Your task to perform on an android device: What's on my calendar tomorrow? Image 0: 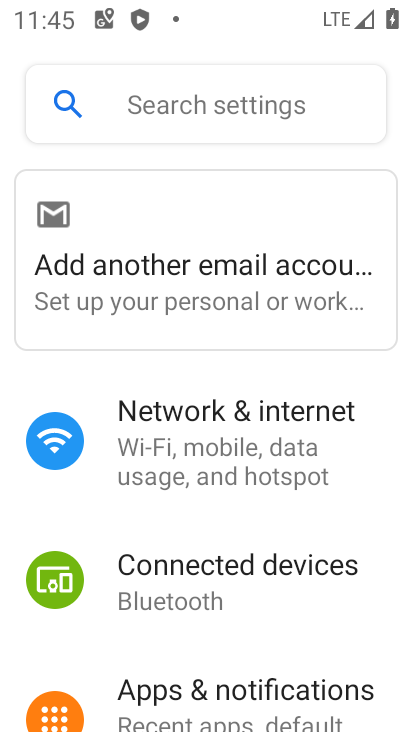
Step 0: press home button
Your task to perform on an android device: What's on my calendar tomorrow? Image 1: 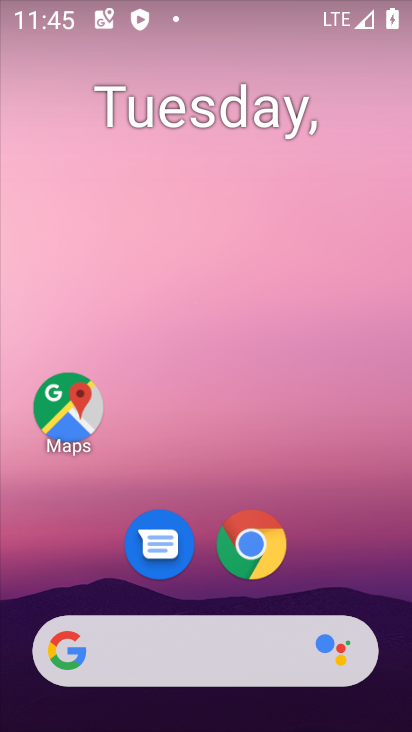
Step 1: drag from (390, 627) to (326, 97)
Your task to perform on an android device: What's on my calendar tomorrow? Image 2: 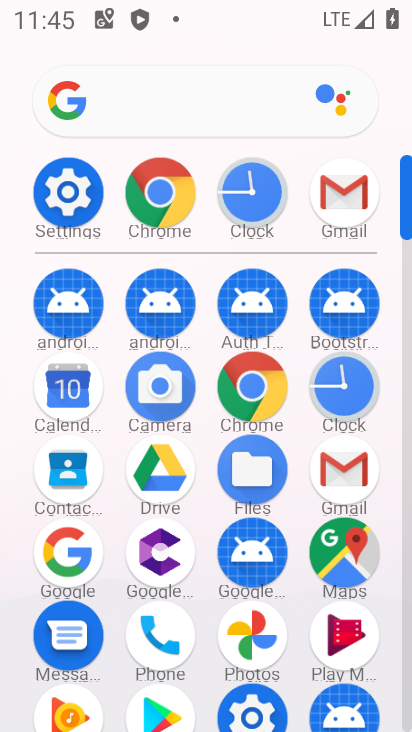
Step 2: click (62, 407)
Your task to perform on an android device: What's on my calendar tomorrow? Image 3: 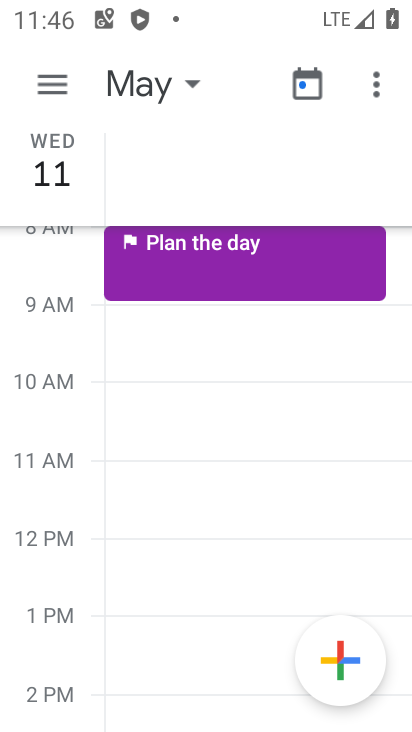
Step 3: click (132, 98)
Your task to perform on an android device: What's on my calendar tomorrow? Image 4: 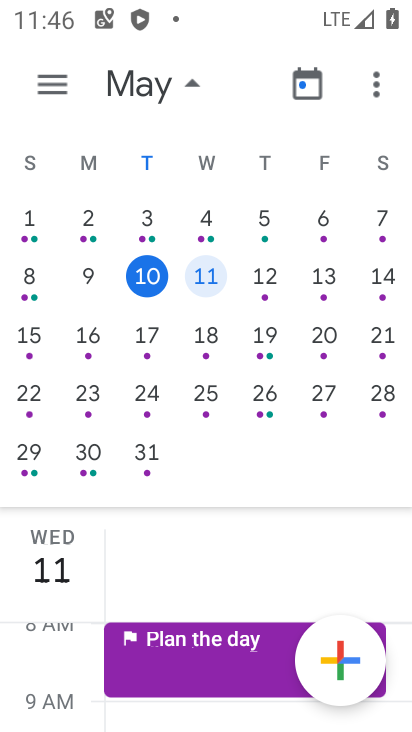
Step 4: click (261, 278)
Your task to perform on an android device: What's on my calendar tomorrow? Image 5: 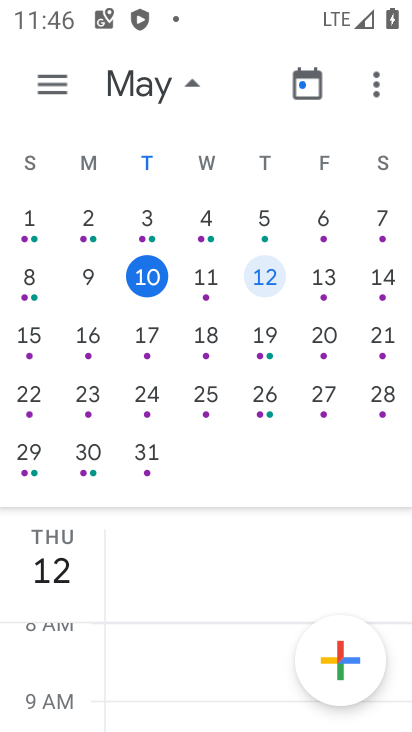
Step 5: drag from (182, 621) to (235, 236)
Your task to perform on an android device: What's on my calendar tomorrow? Image 6: 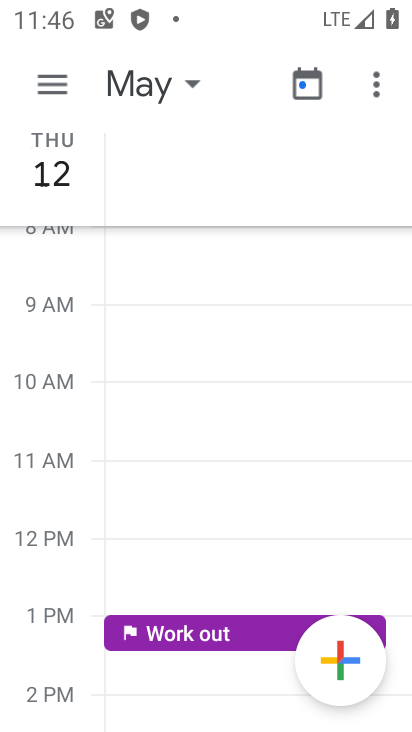
Step 6: click (175, 639)
Your task to perform on an android device: What's on my calendar tomorrow? Image 7: 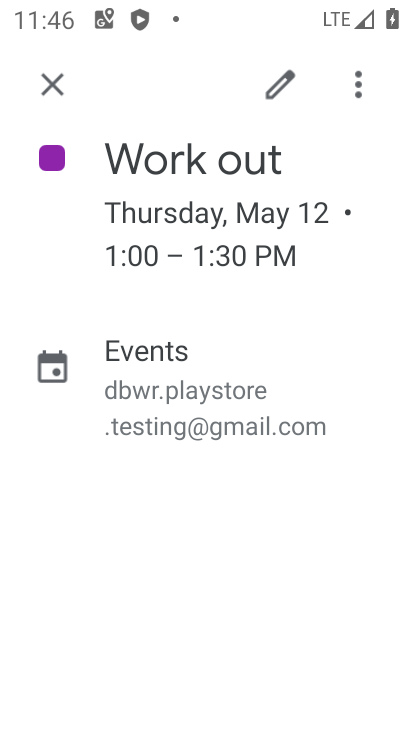
Step 7: task complete